Your task to perform on an android device: Open calendar and show me the fourth week of next month Image 0: 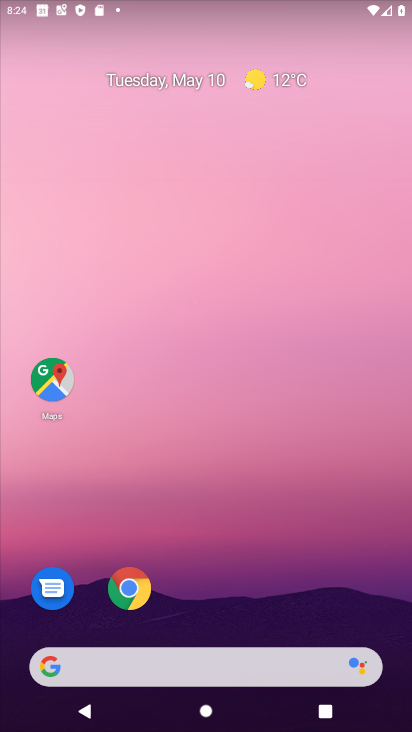
Step 0: click (148, 104)
Your task to perform on an android device: Open calendar and show me the fourth week of next month Image 1: 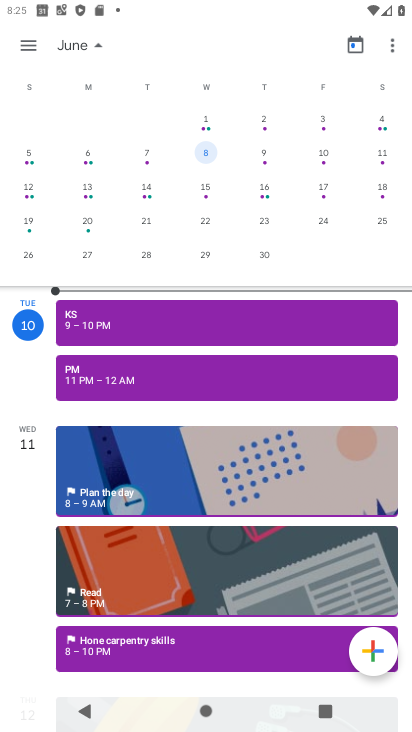
Step 1: click (265, 223)
Your task to perform on an android device: Open calendar and show me the fourth week of next month Image 2: 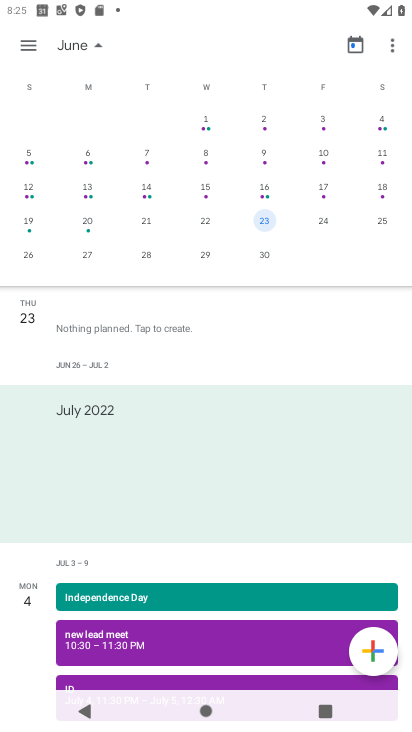
Step 2: task complete